Your task to perform on an android device: Clear the cart on walmart. Add alienware aurora to the cart on walmart Image 0: 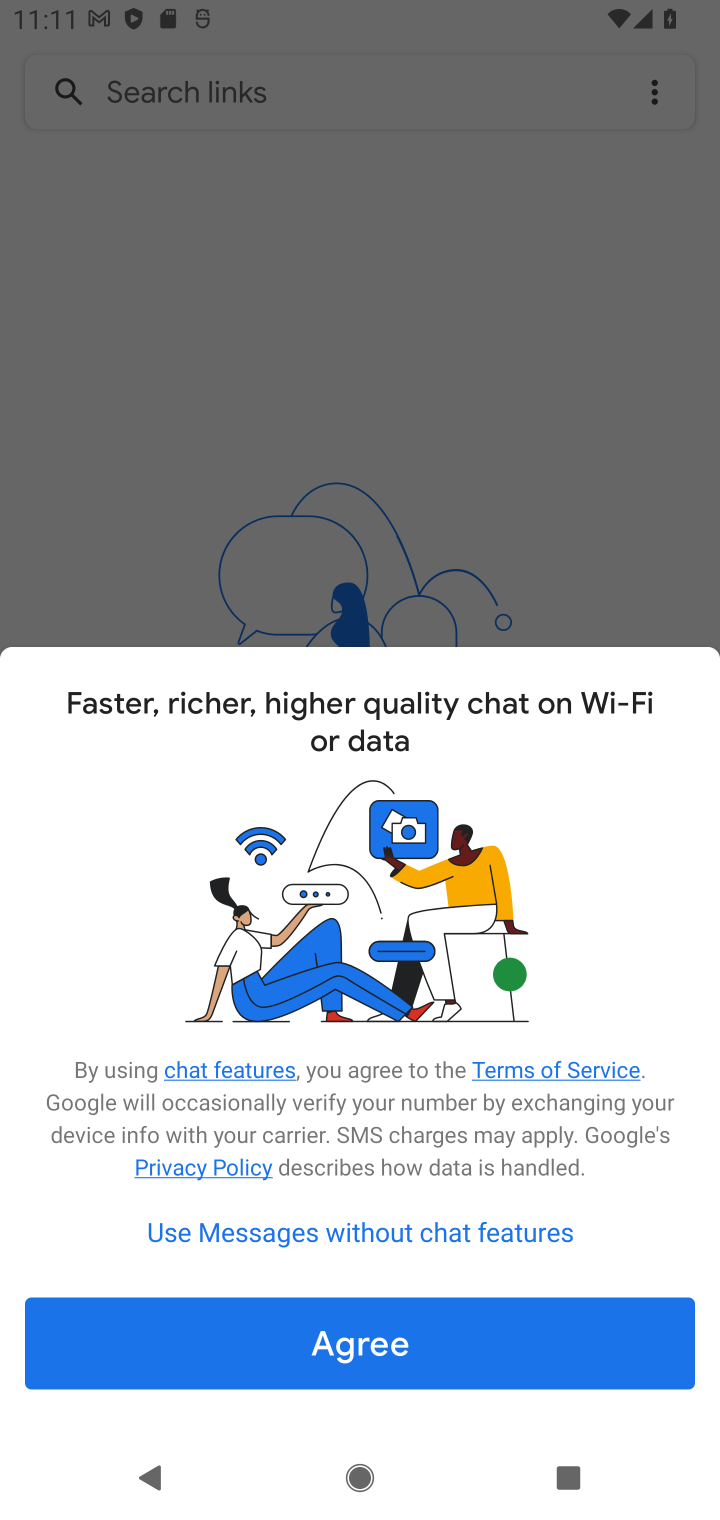
Step 0: press home button
Your task to perform on an android device: Clear the cart on walmart. Add alienware aurora to the cart on walmart Image 1: 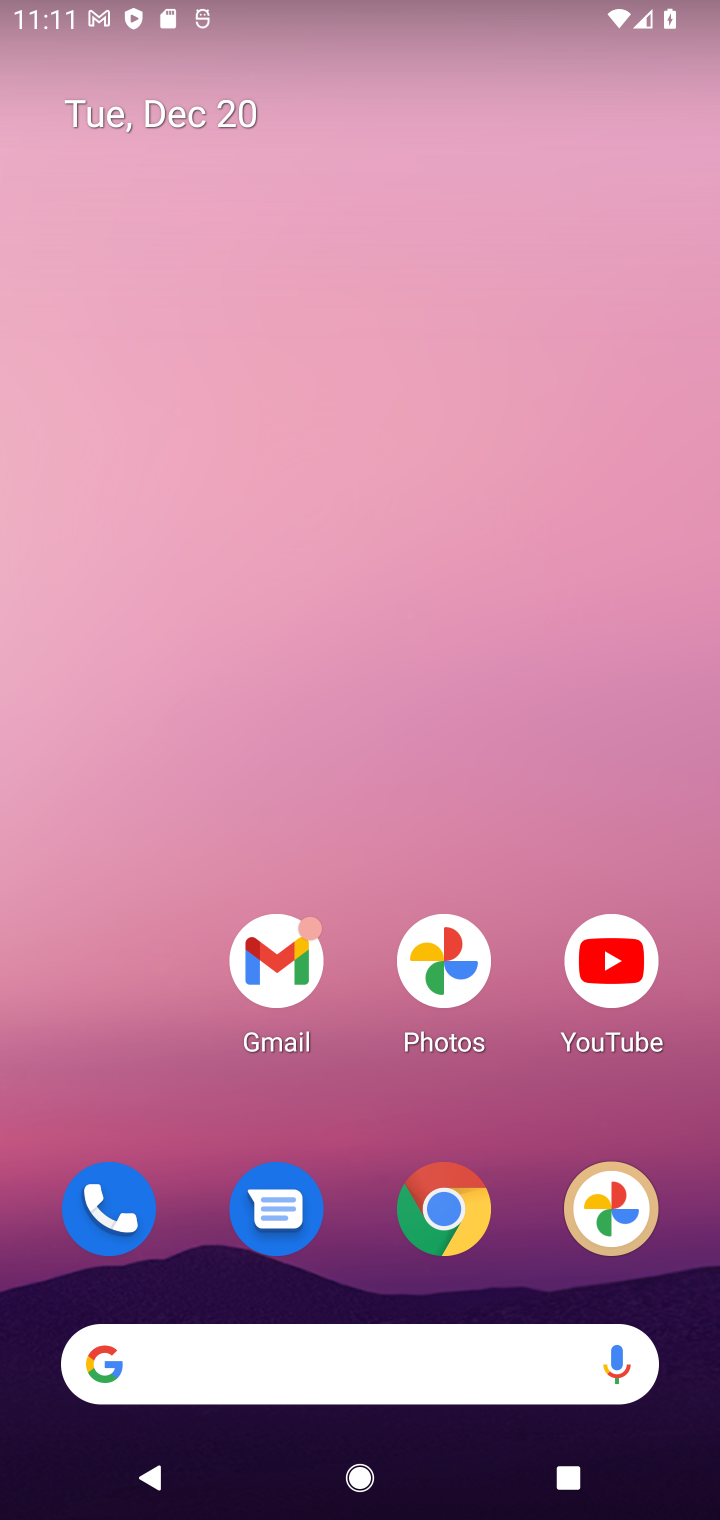
Step 1: click (459, 1217)
Your task to perform on an android device: Clear the cart on walmart. Add alienware aurora to the cart on walmart Image 2: 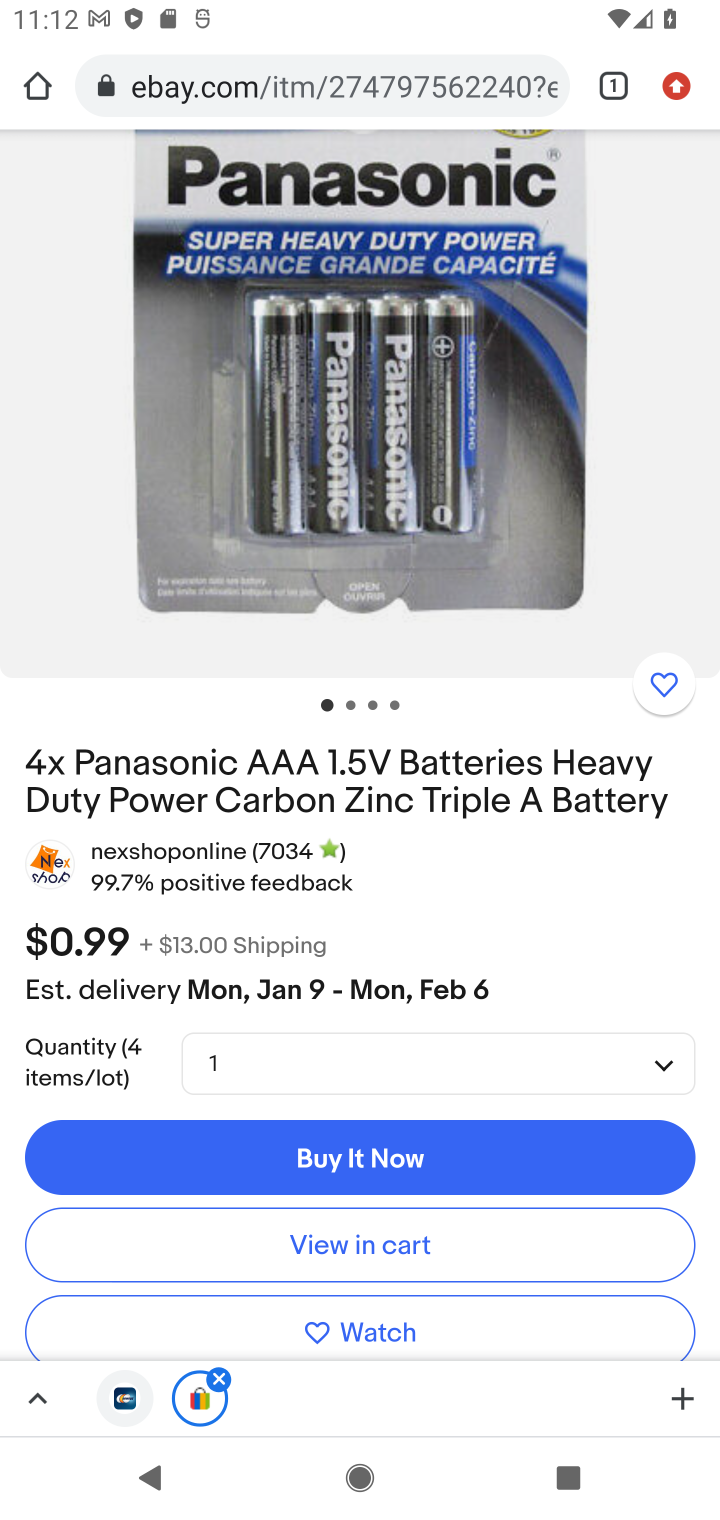
Step 2: click (266, 97)
Your task to perform on an android device: Clear the cart on walmart. Add alienware aurora to the cart on walmart Image 3: 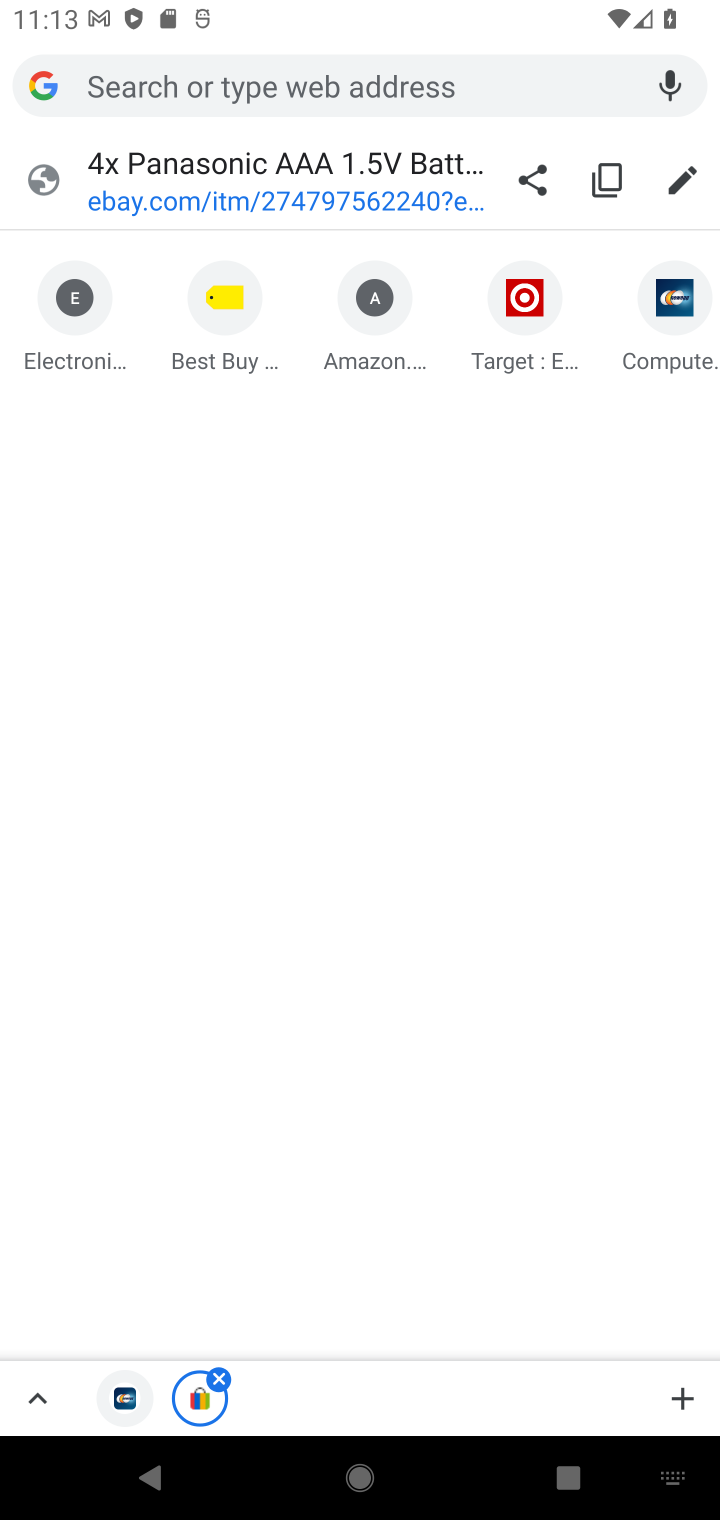
Step 3: type "walmart.com"
Your task to perform on an android device: Clear the cart on walmart. Add alienware aurora to the cart on walmart Image 4: 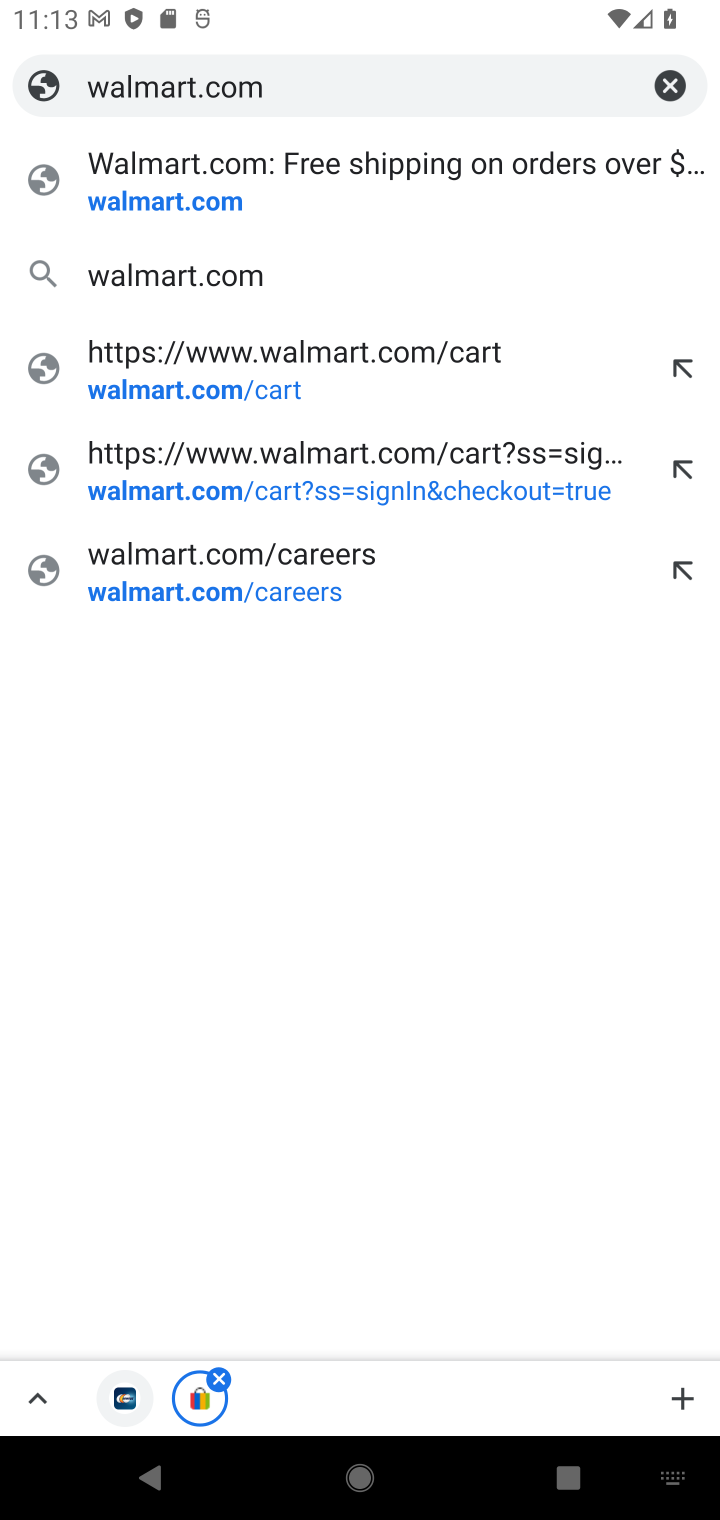
Step 4: click (148, 211)
Your task to perform on an android device: Clear the cart on walmart. Add alienware aurora to the cart on walmart Image 5: 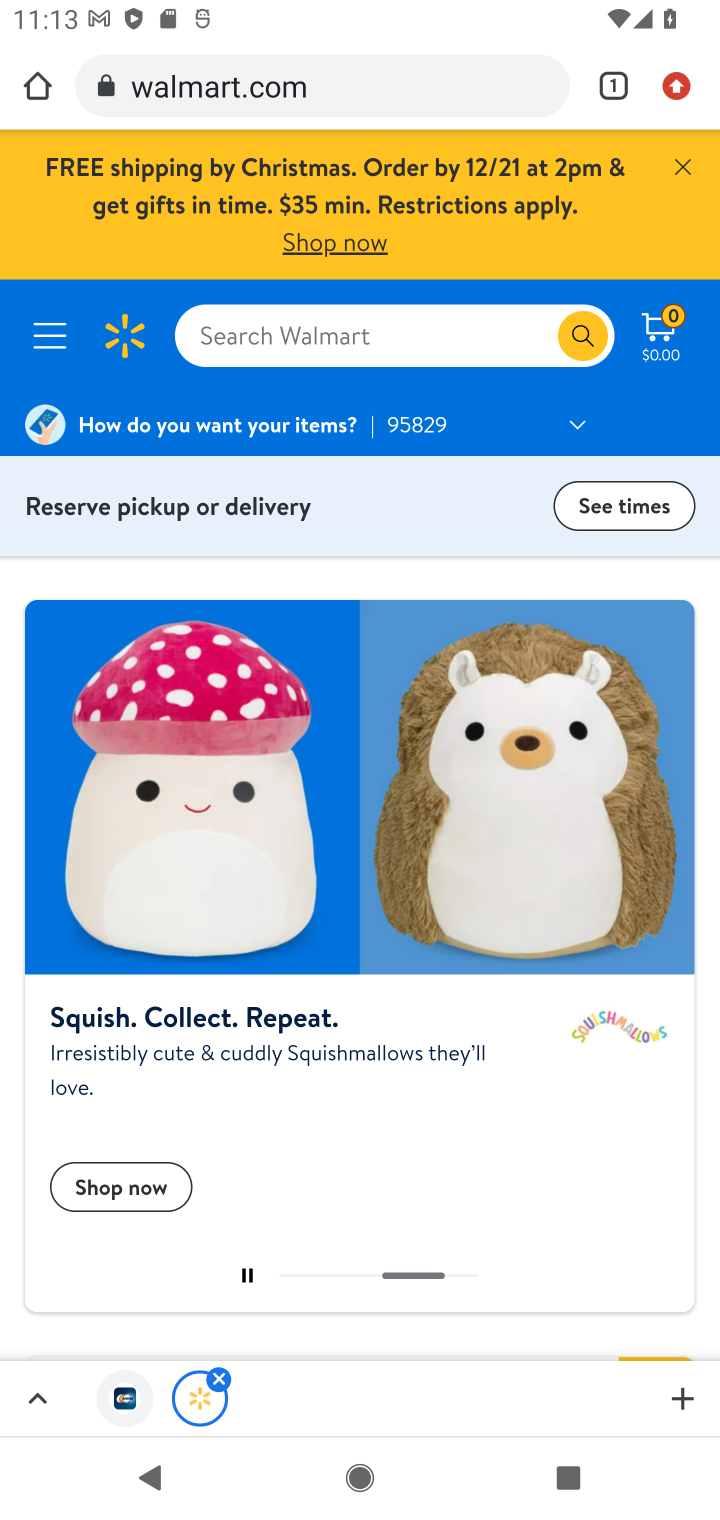
Step 5: click (658, 335)
Your task to perform on an android device: Clear the cart on walmart. Add alienware aurora to the cart on walmart Image 6: 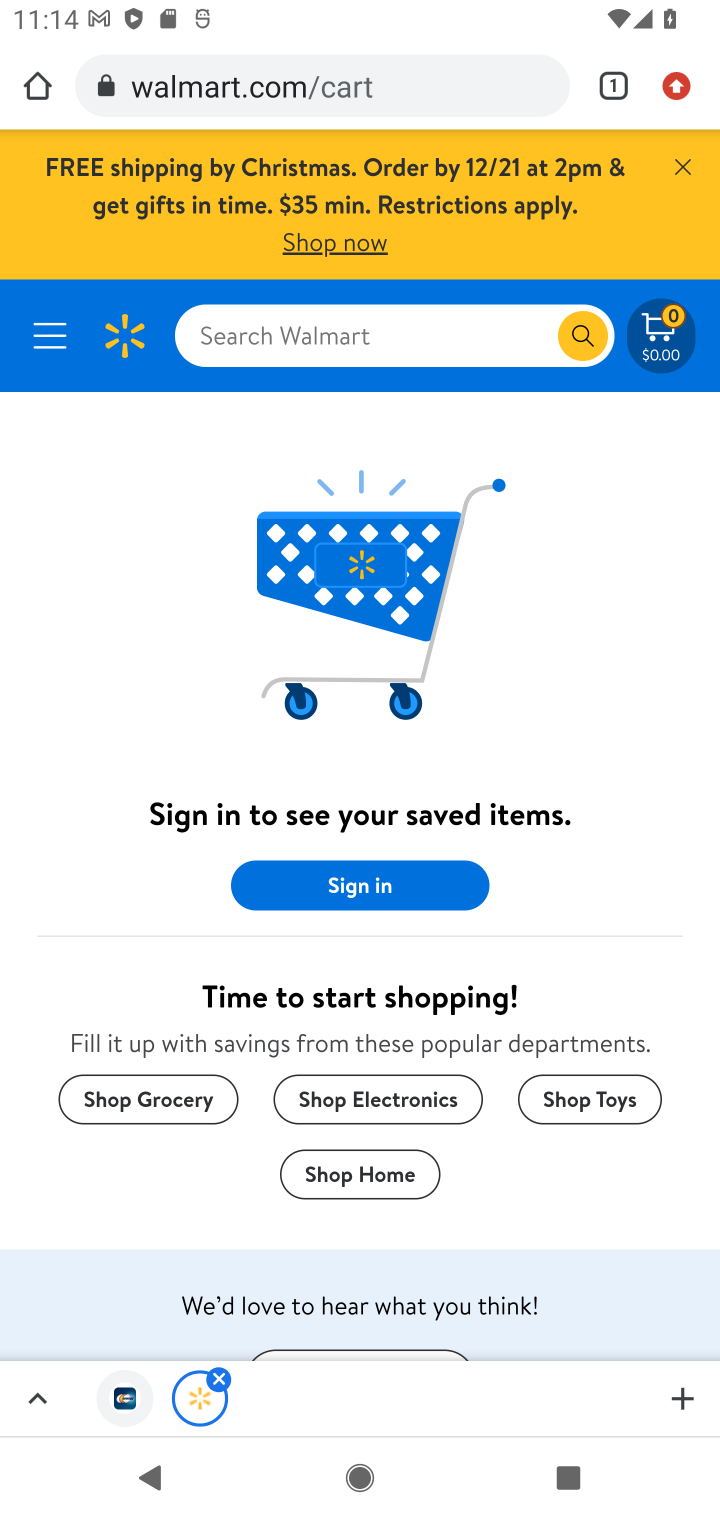
Step 6: click (257, 337)
Your task to perform on an android device: Clear the cart on walmart. Add alienware aurora to the cart on walmart Image 7: 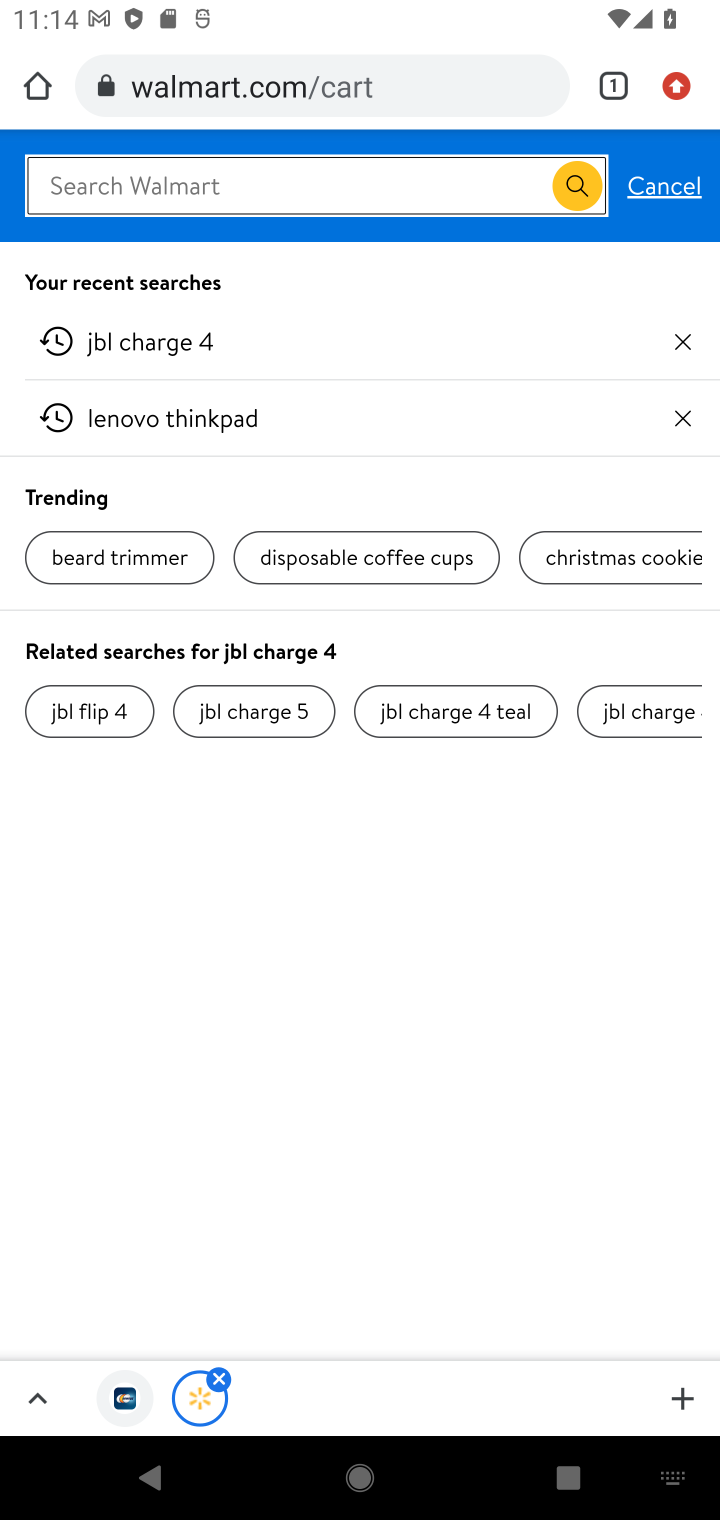
Step 7: type "alienware aurora"
Your task to perform on an android device: Clear the cart on walmart. Add alienware aurora to the cart on walmart Image 8: 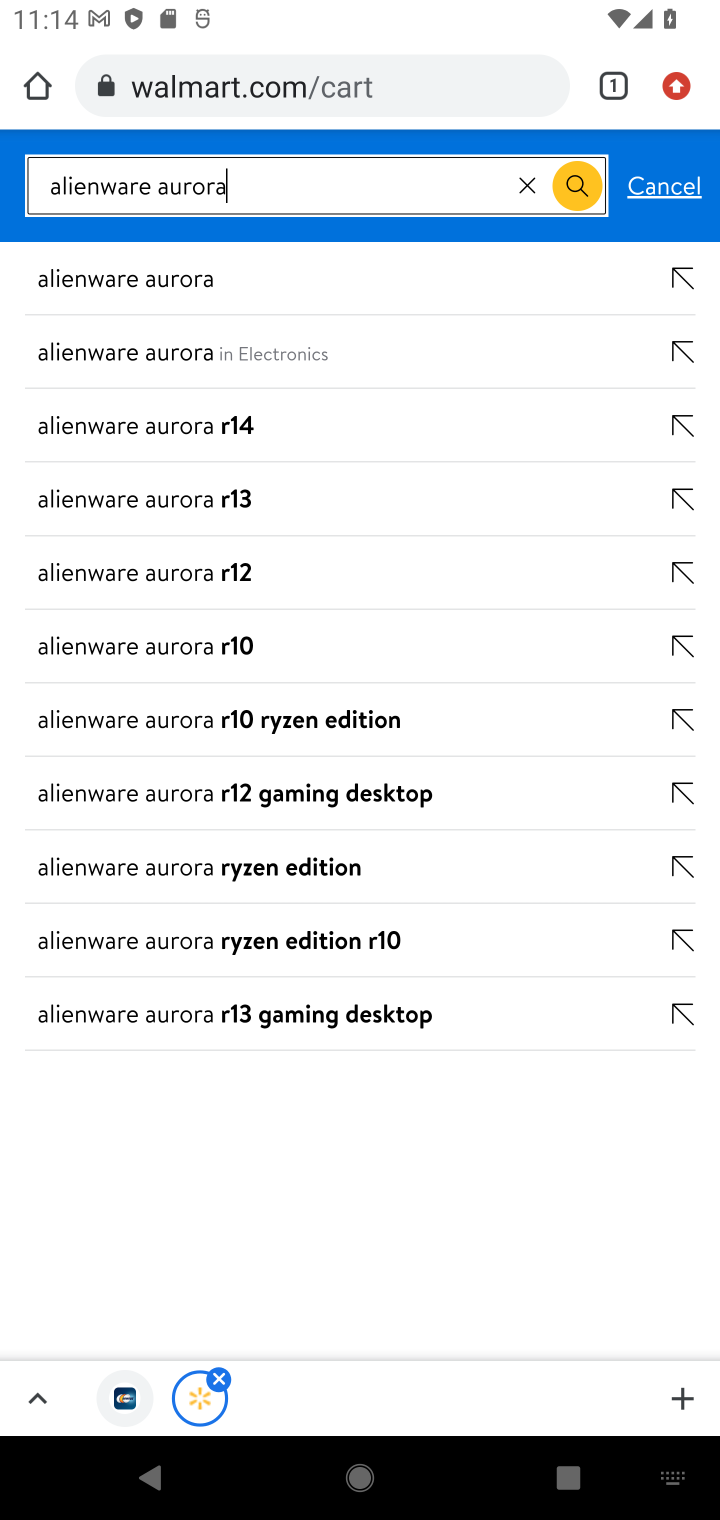
Step 8: click (70, 286)
Your task to perform on an android device: Clear the cart on walmart. Add alienware aurora to the cart on walmart Image 9: 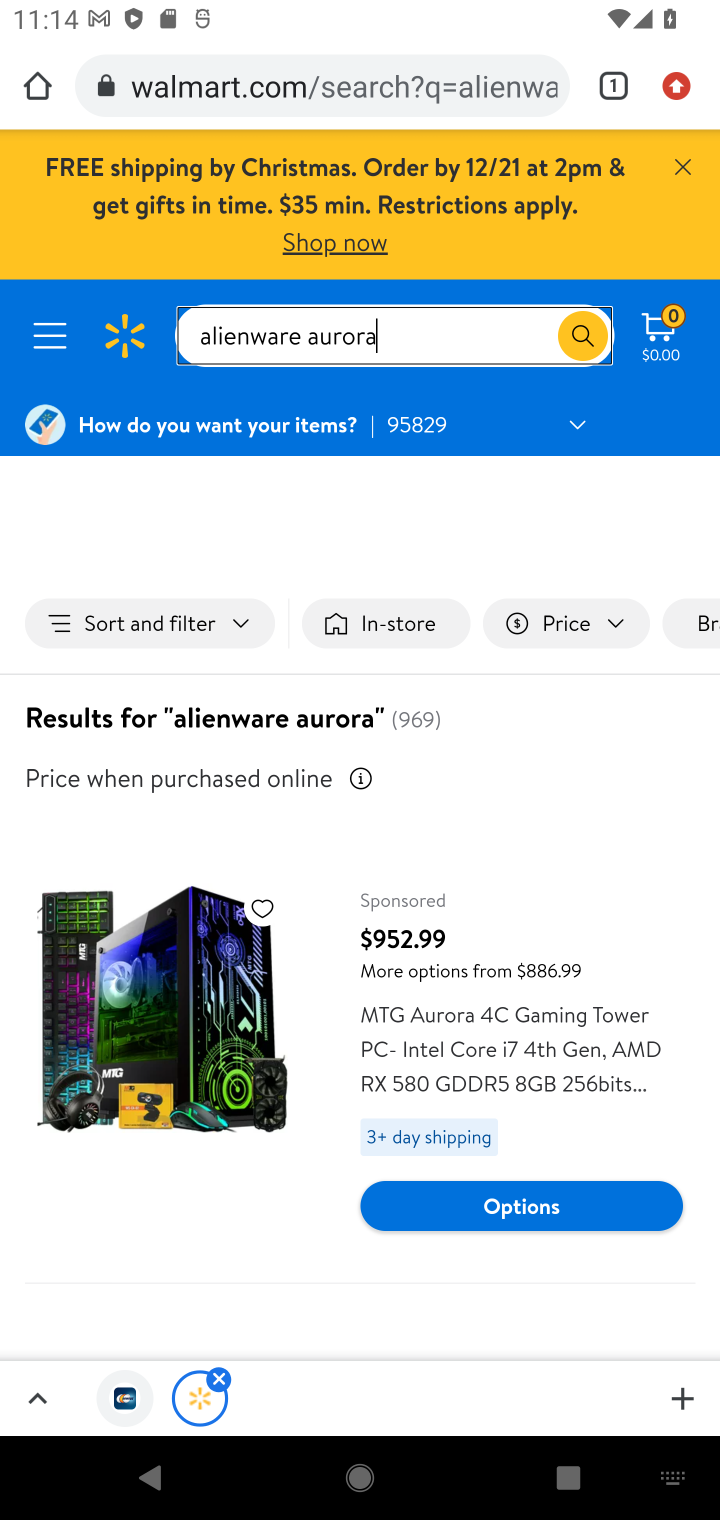
Step 9: drag from (328, 930) to (298, 385)
Your task to perform on an android device: Clear the cart on walmart. Add alienware aurora to the cart on walmart Image 10: 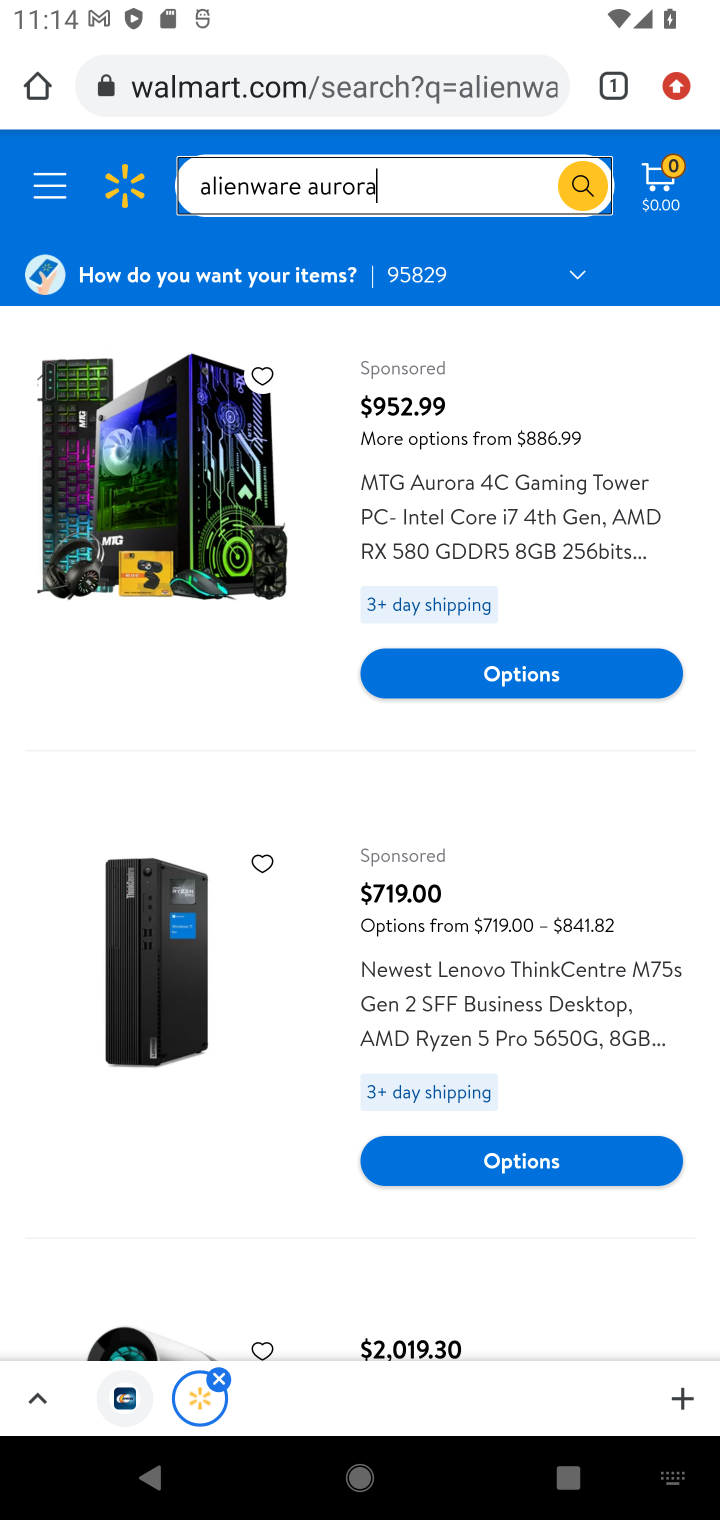
Step 10: drag from (267, 1062) to (288, 518)
Your task to perform on an android device: Clear the cart on walmart. Add alienware aurora to the cart on walmart Image 11: 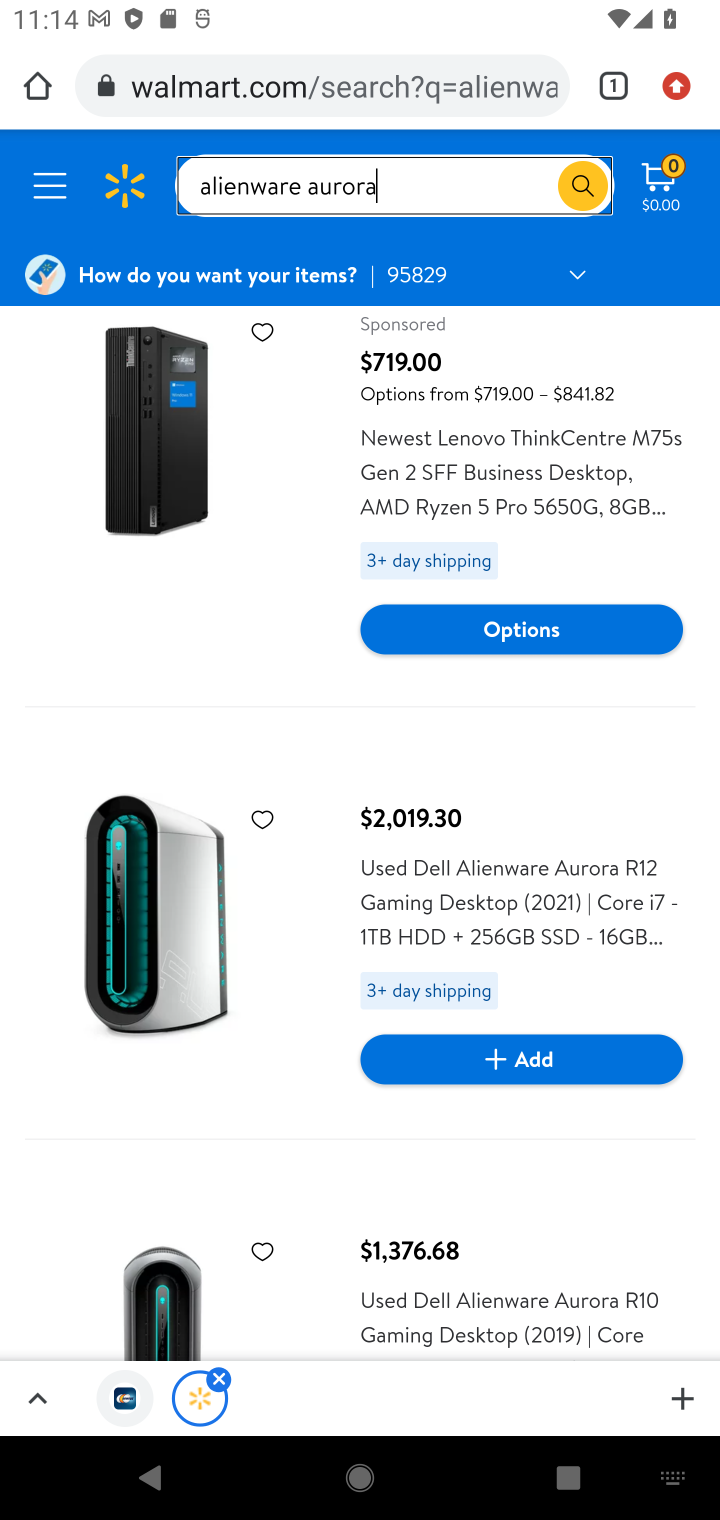
Step 11: click (539, 1055)
Your task to perform on an android device: Clear the cart on walmart. Add alienware aurora to the cart on walmart Image 12: 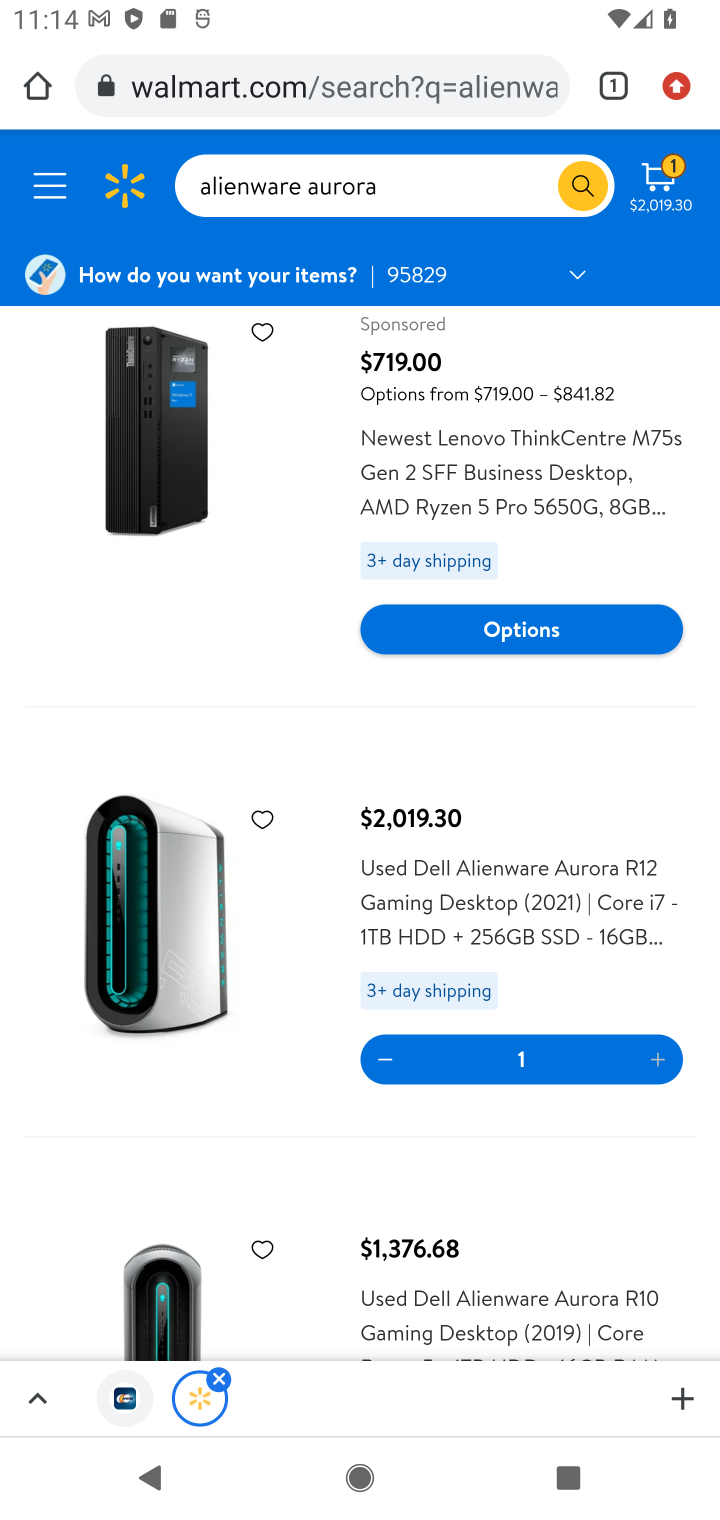
Step 12: task complete